Your task to perform on an android device: toggle priority inbox in the gmail app Image 0: 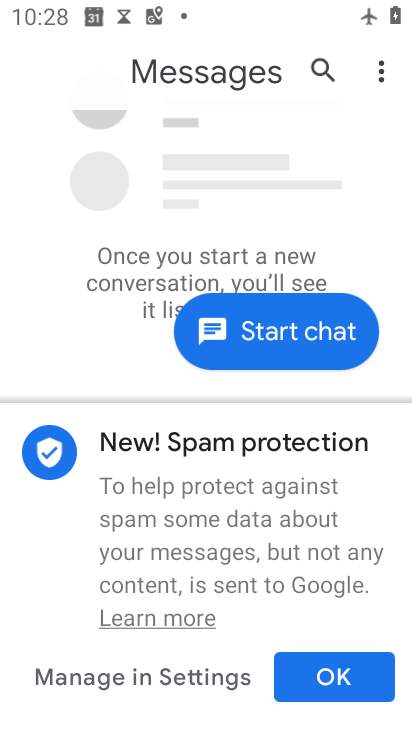
Step 0: press home button
Your task to perform on an android device: toggle priority inbox in the gmail app Image 1: 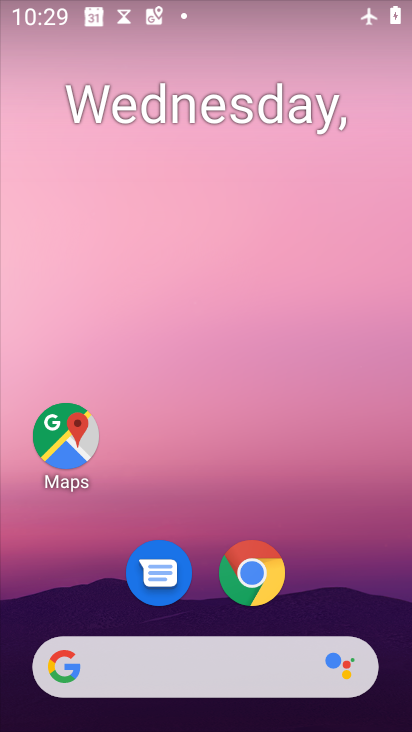
Step 1: drag from (310, 602) to (326, 204)
Your task to perform on an android device: toggle priority inbox in the gmail app Image 2: 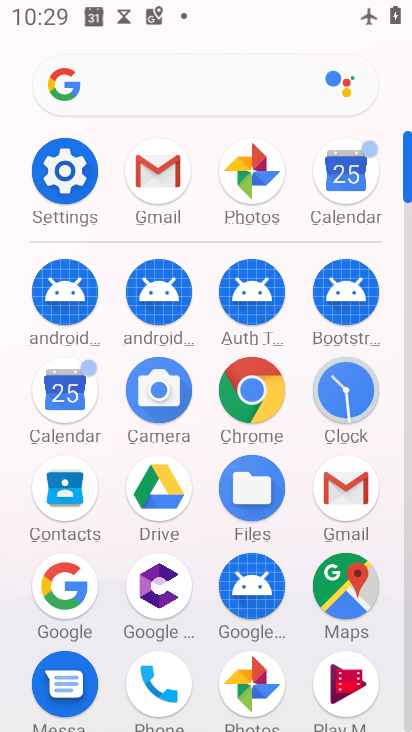
Step 2: click (355, 496)
Your task to perform on an android device: toggle priority inbox in the gmail app Image 3: 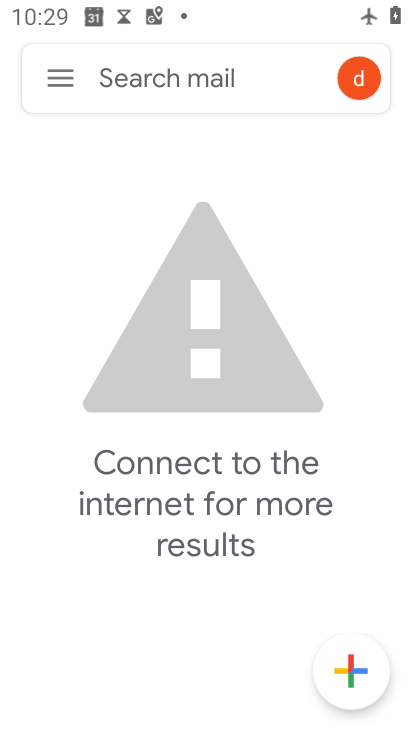
Step 3: click (52, 72)
Your task to perform on an android device: toggle priority inbox in the gmail app Image 4: 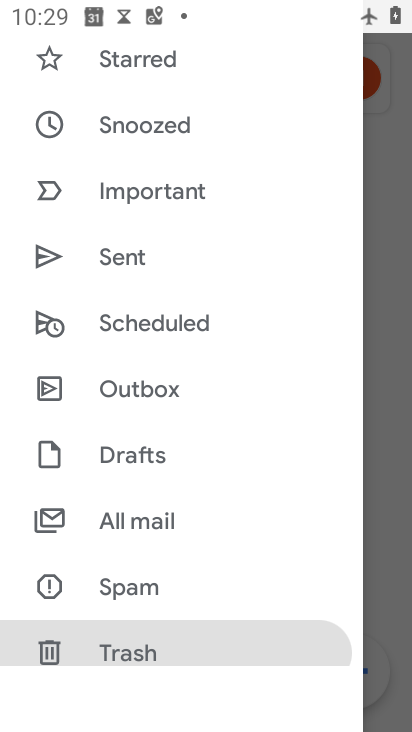
Step 4: drag from (197, 561) to (195, 206)
Your task to perform on an android device: toggle priority inbox in the gmail app Image 5: 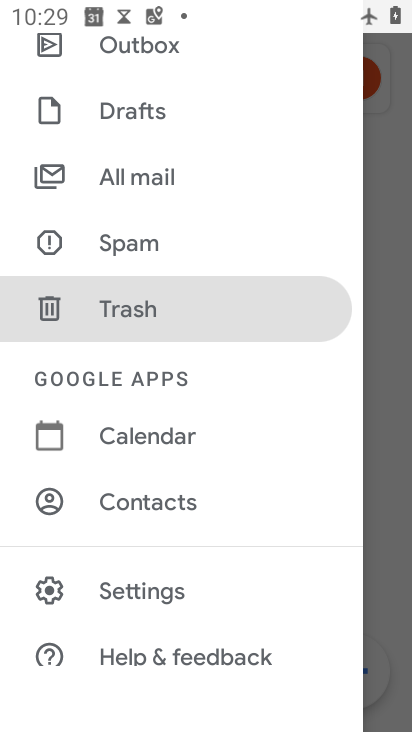
Step 5: click (154, 588)
Your task to perform on an android device: toggle priority inbox in the gmail app Image 6: 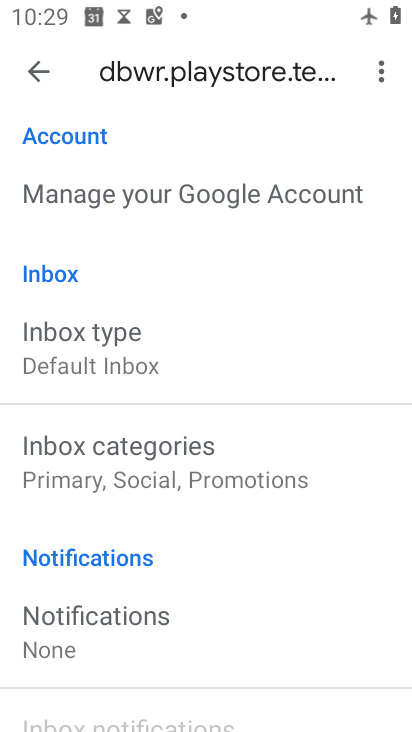
Step 6: click (136, 358)
Your task to perform on an android device: toggle priority inbox in the gmail app Image 7: 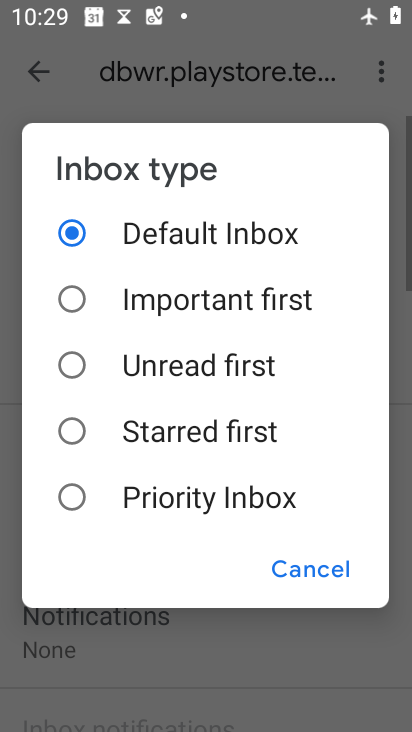
Step 7: click (162, 501)
Your task to perform on an android device: toggle priority inbox in the gmail app Image 8: 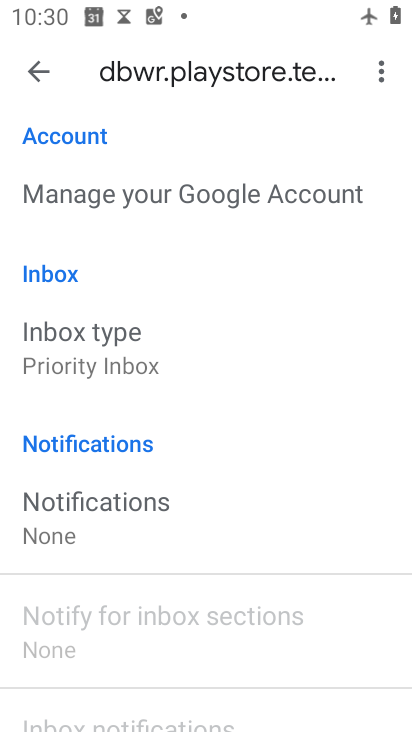
Step 8: task complete